Your task to perform on an android device: find snoozed emails in the gmail app Image 0: 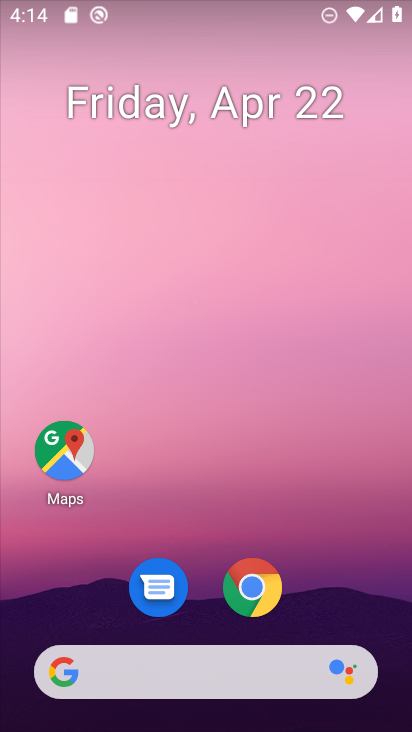
Step 0: drag from (357, 552) to (331, 107)
Your task to perform on an android device: find snoozed emails in the gmail app Image 1: 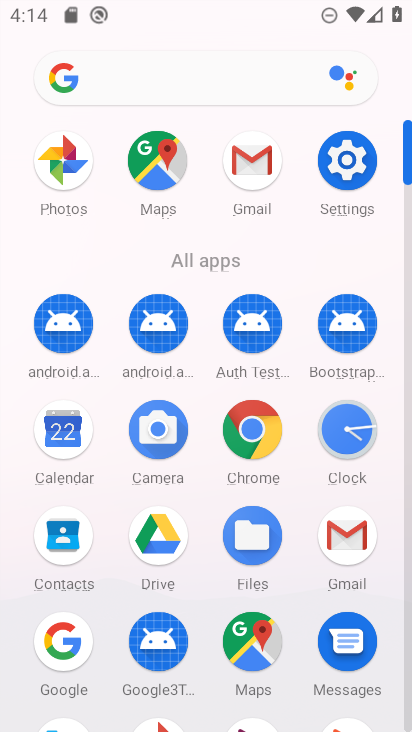
Step 1: click (251, 156)
Your task to perform on an android device: find snoozed emails in the gmail app Image 2: 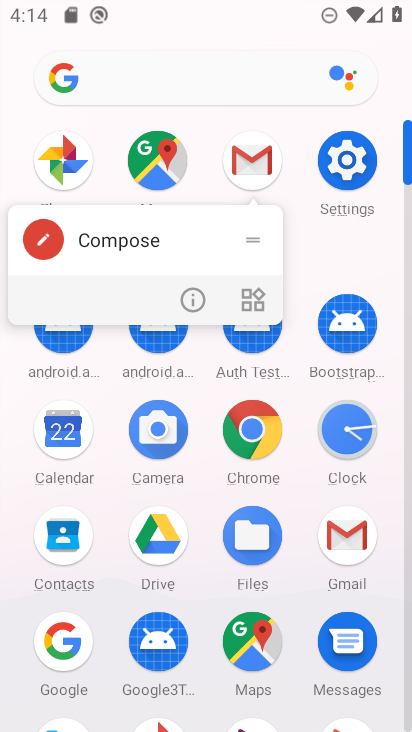
Step 2: click (251, 158)
Your task to perform on an android device: find snoozed emails in the gmail app Image 3: 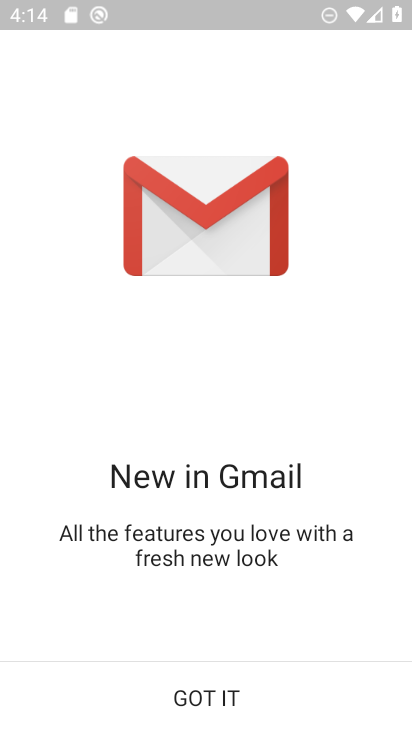
Step 3: click (234, 684)
Your task to perform on an android device: find snoozed emails in the gmail app Image 4: 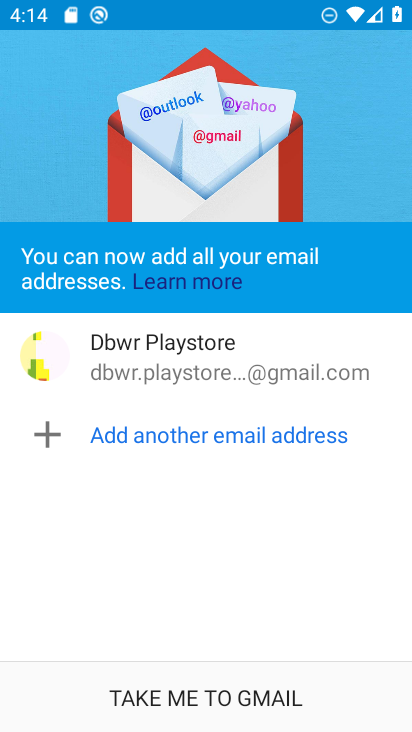
Step 4: click (234, 684)
Your task to perform on an android device: find snoozed emails in the gmail app Image 5: 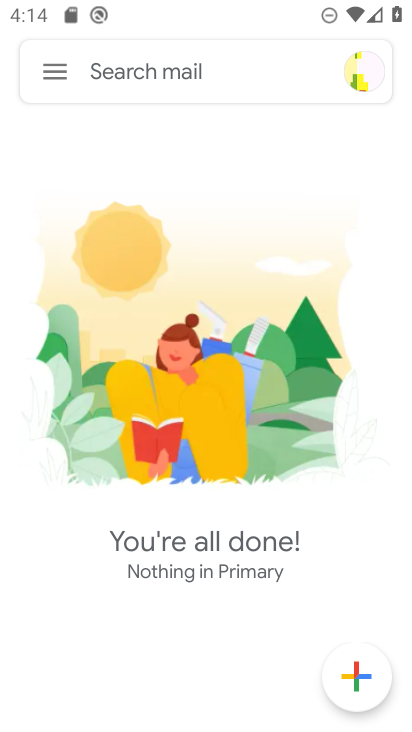
Step 5: click (54, 68)
Your task to perform on an android device: find snoozed emails in the gmail app Image 6: 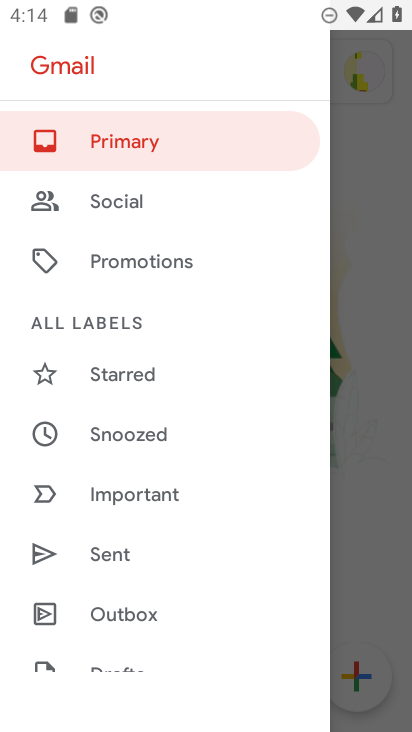
Step 6: click (111, 431)
Your task to perform on an android device: find snoozed emails in the gmail app Image 7: 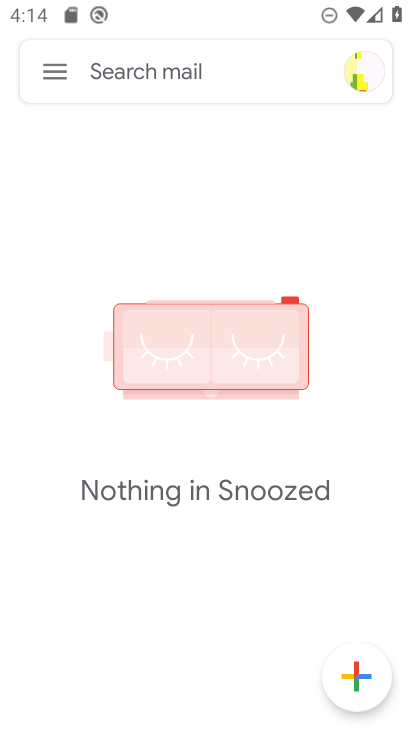
Step 7: task complete